Your task to perform on an android device: check battery use Image 0: 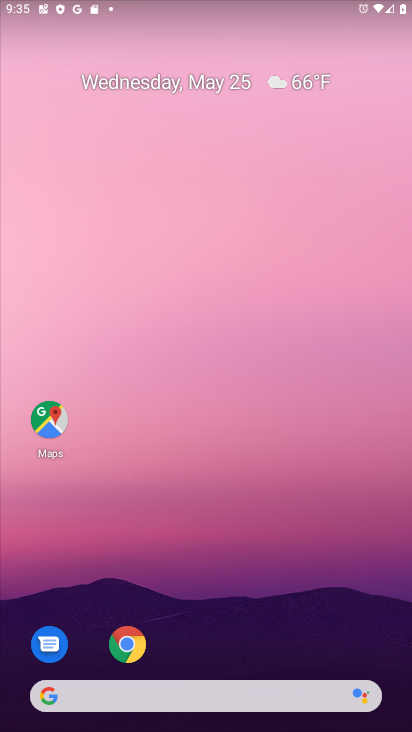
Step 0: press home button
Your task to perform on an android device: check battery use Image 1: 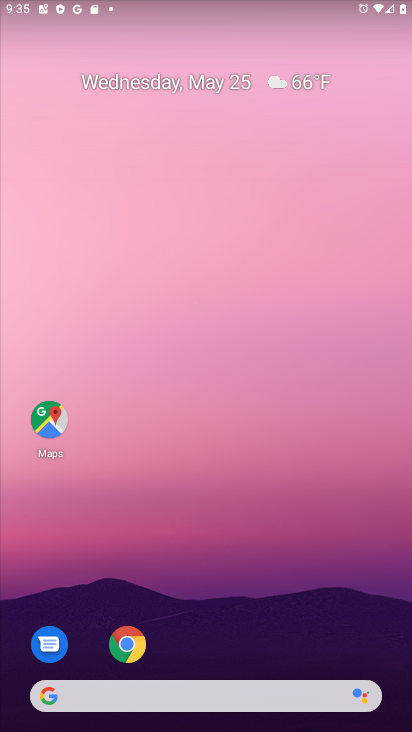
Step 1: drag from (224, 657) to (286, 90)
Your task to perform on an android device: check battery use Image 2: 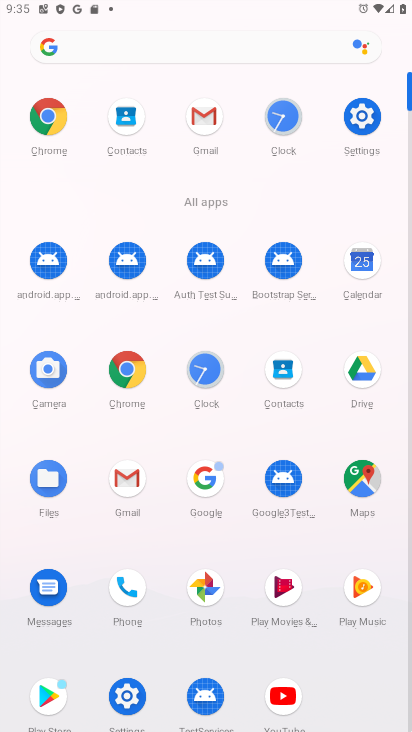
Step 2: click (362, 107)
Your task to perform on an android device: check battery use Image 3: 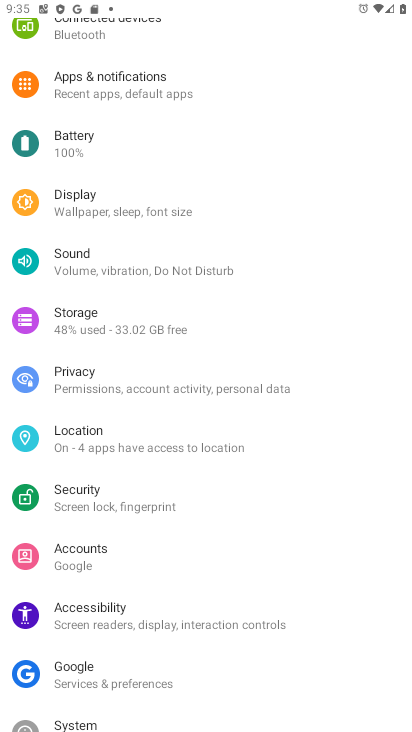
Step 3: click (99, 144)
Your task to perform on an android device: check battery use Image 4: 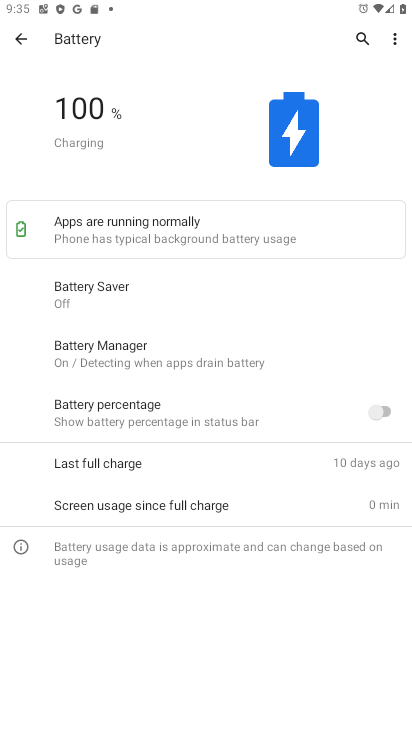
Step 4: click (390, 34)
Your task to perform on an android device: check battery use Image 5: 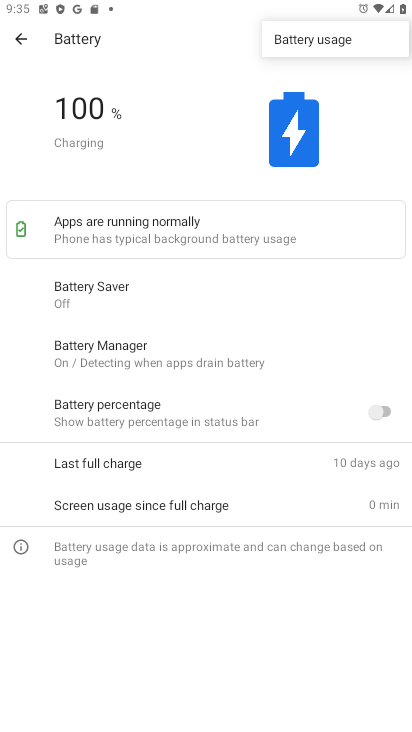
Step 5: click (306, 39)
Your task to perform on an android device: check battery use Image 6: 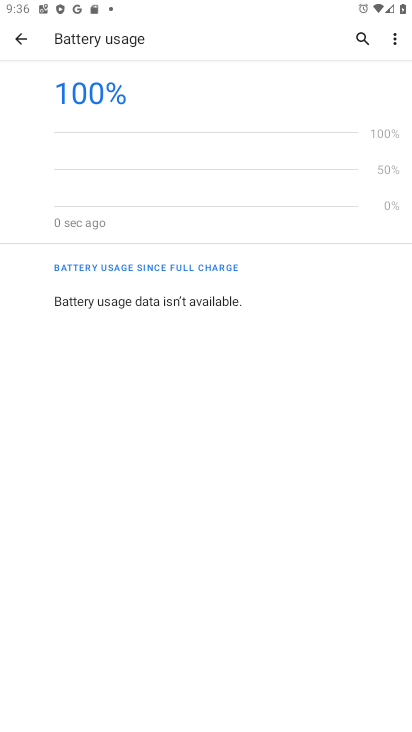
Step 6: task complete